Your task to perform on an android device: turn off airplane mode Image 0: 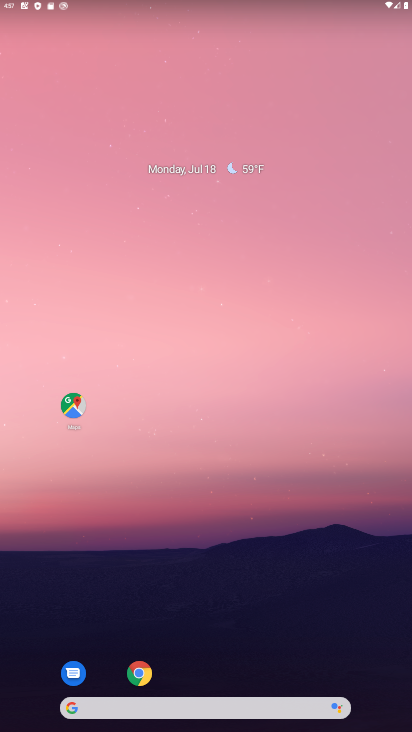
Step 0: drag from (303, 517) to (203, 87)
Your task to perform on an android device: turn off airplane mode Image 1: 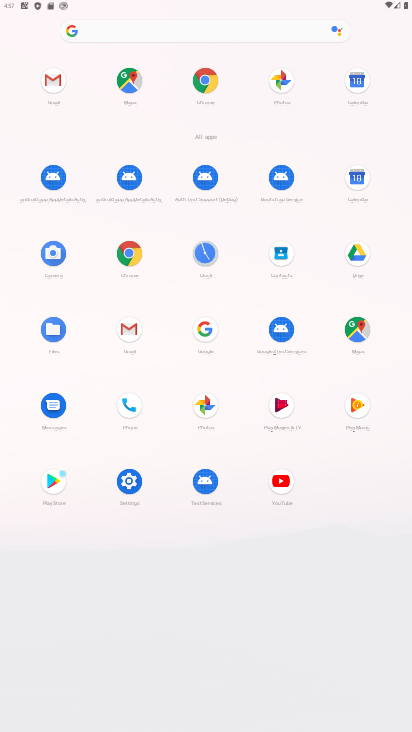
Step 1: click (132, 474)
Your task to perform on an android device: turn off airplane mode Image 2: 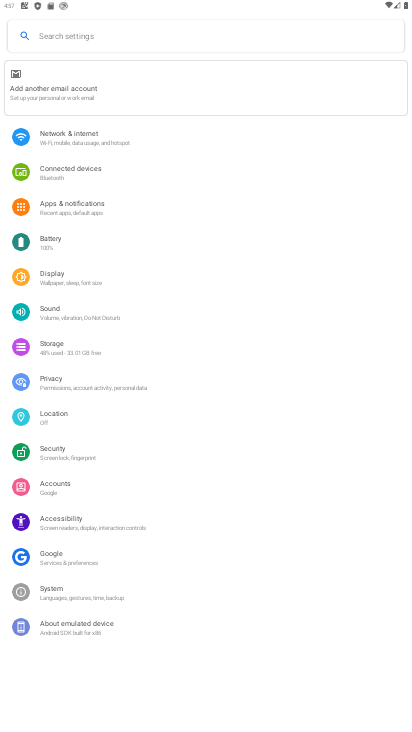
Step 2: click (59, 141)
Your task to perform on an android device: turn off airplane mode Image 3: 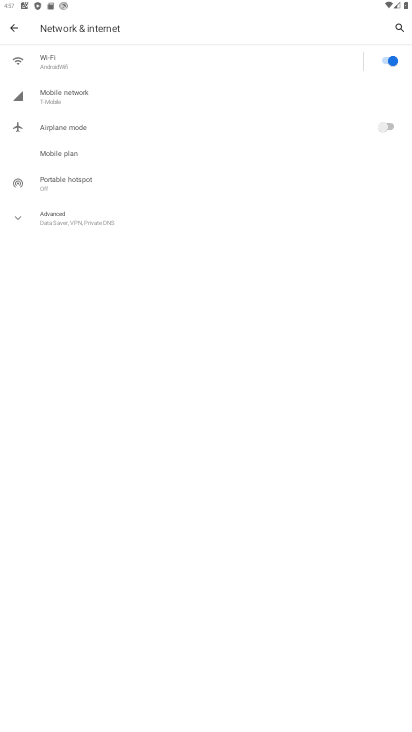
Step 3: task complete